Your task to perform on an android device: Go to battery settings Image 0: 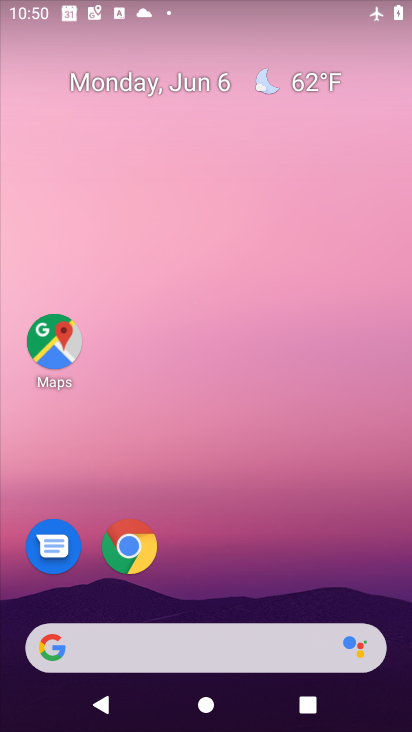
Step 0: drag from (359, 464) to (332, 46)
Your task to perform on an android device: Go to battery settings Image 1: 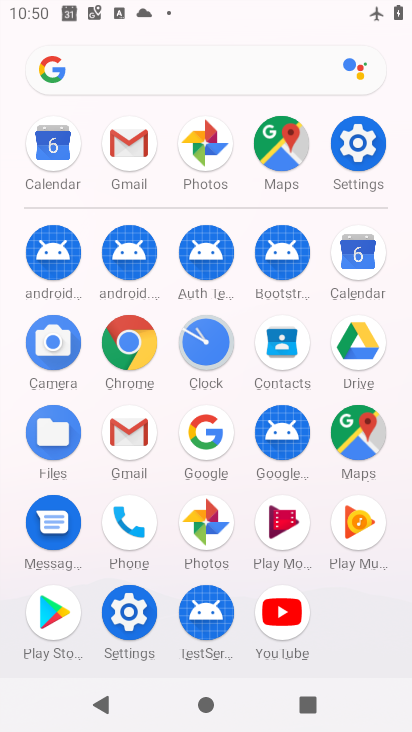
Step 1: click (128, 611)
Your task to perform on an android device: Go to battery settings Image 2: 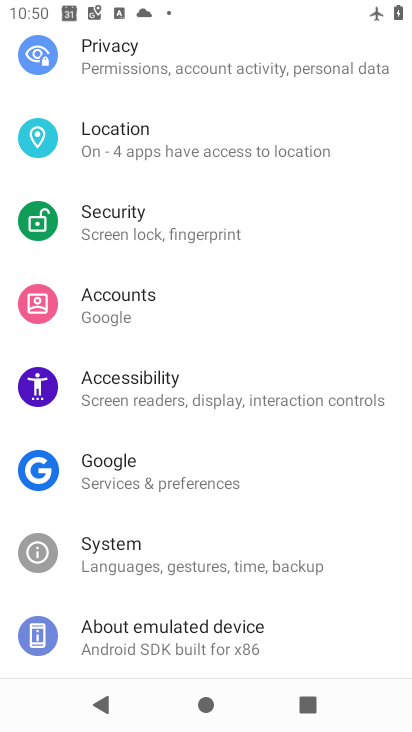
Step 2: drag from (336, 123) to (332, 551)
Your task to perform on an android device: Go to battery settings Image 3: 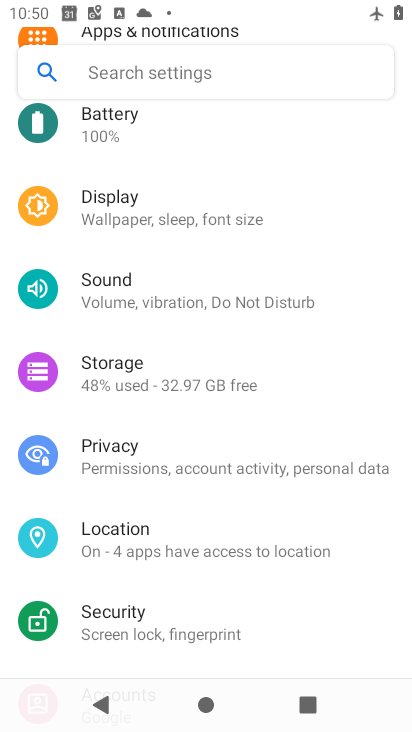
Step 3: drag from (324, 188) to (310, 358)
Your task to perform on an android device: Go to battery settings Image 4: 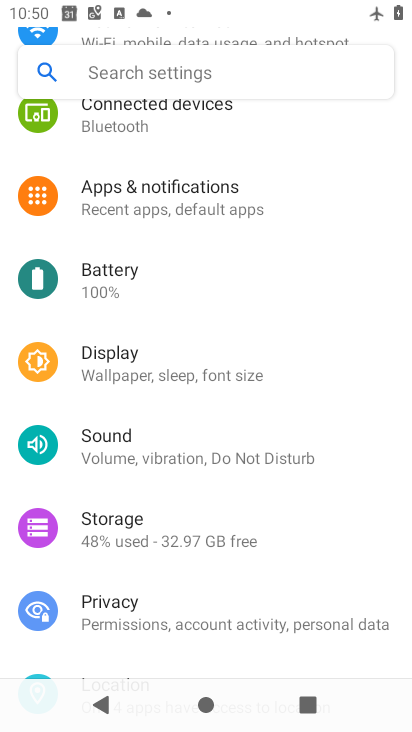
Step 4: click (93, 268)
Your task to perform on an android device: Go to battery settings Image 5: 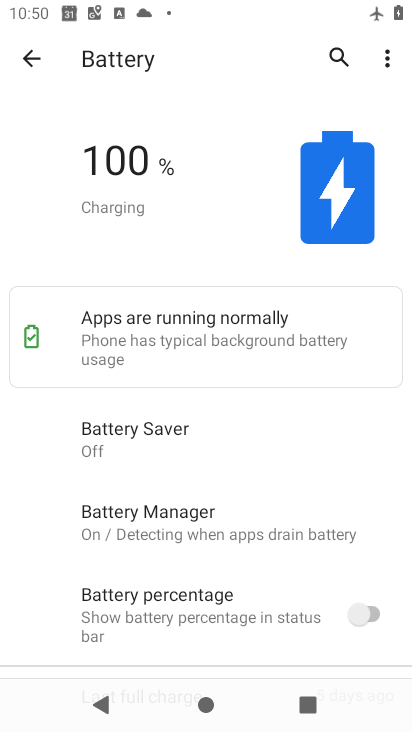
Step 5: task complete